Your task to perform on an android device: set the timer Image 0: 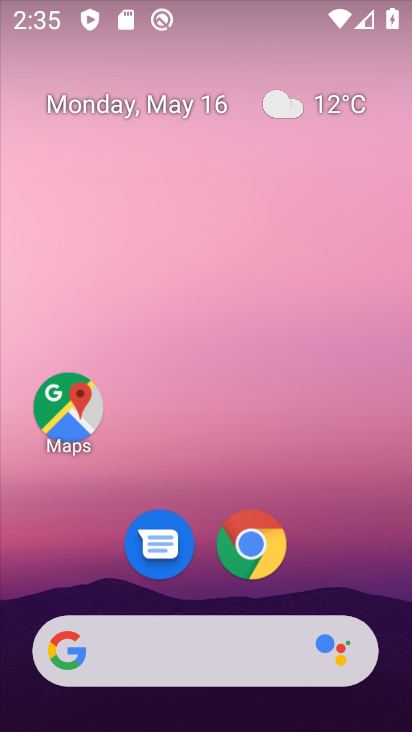
Step 0: drag from (210, 720) to (212, 175)
Your task to perform on an android device: set the timer Image 1: 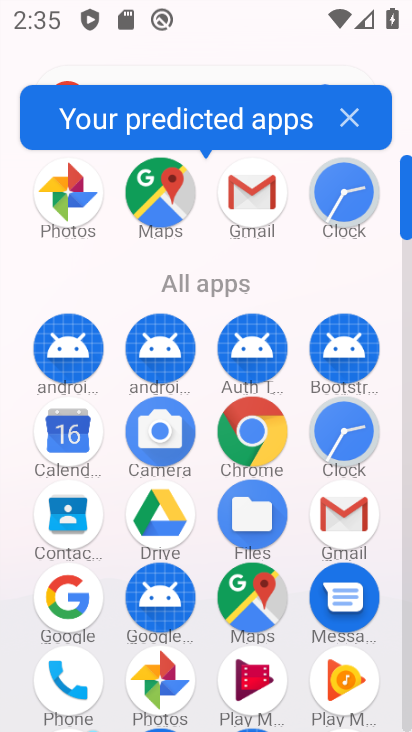
Step 1: click (348, 429)
Your task to perform on an android device: set the timer Image 2: 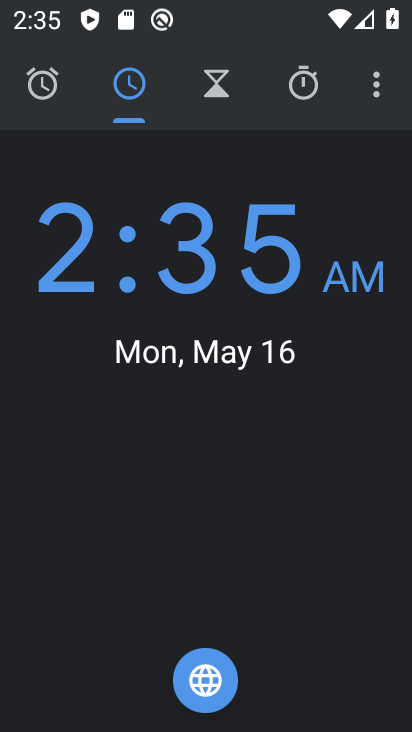
Step 2: click (298, 78)
Your task to perform on an android device: set the timer Image 3: 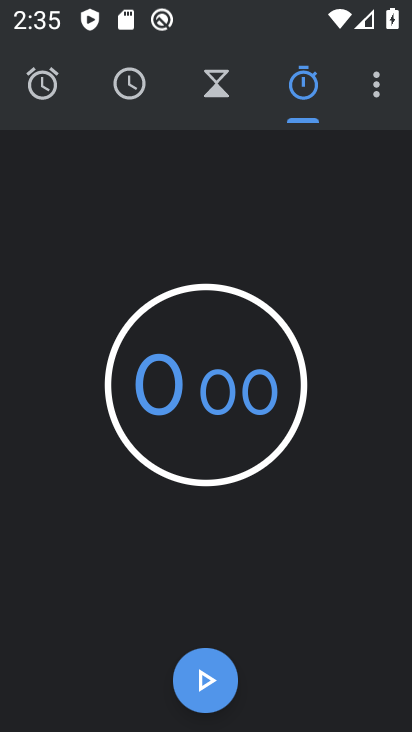
Step 3: click (148, 375)
Your task to perform on an android device: set the timer Image 4: 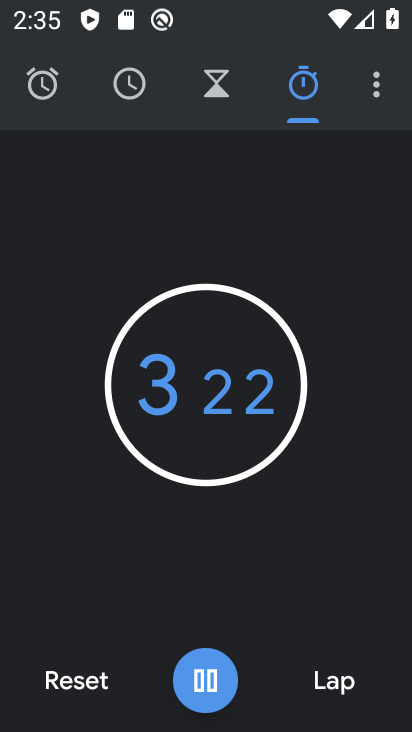
Step 4: type "999"
Your task to perform on an android device: set the timer Image 5: 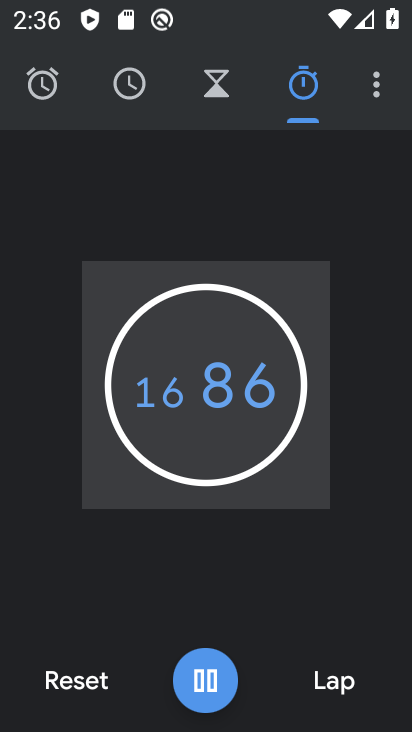
Step 5: task complete